Your task to perform on an android device: Open the map Image 0: 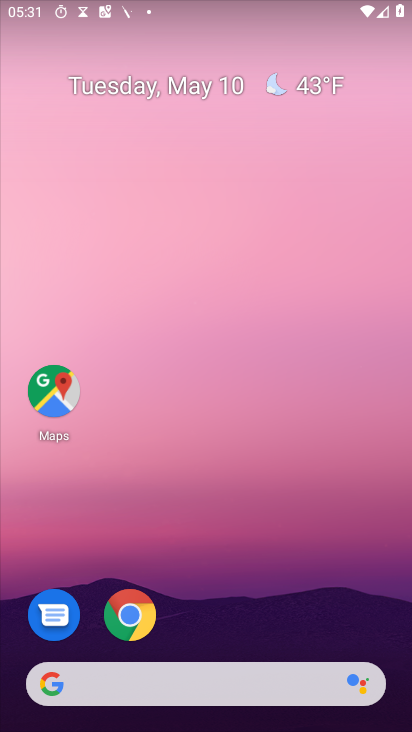
Step 0: drag from (274, 649) to (280, 130)
Your task to perform on an android device: Open the map Image 1: 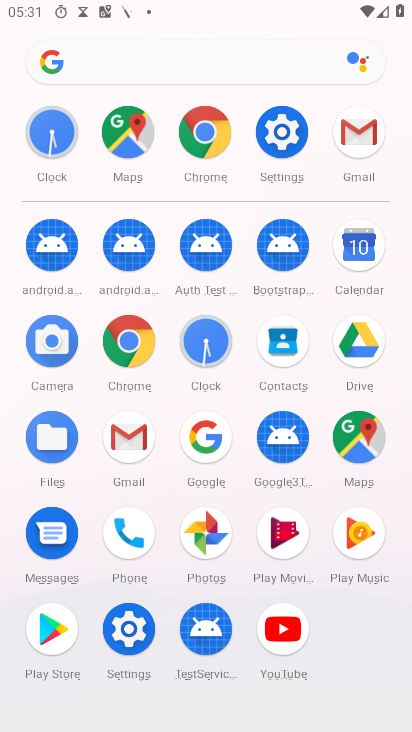
Step 1: click (357, 447)
Your task to perform on an android device: Open the map Image 2: 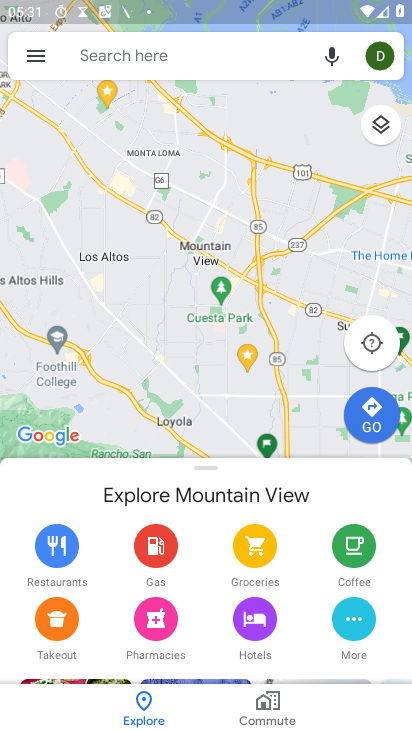
Step 2: task complete